Your task to perform on an android device: Go to settings Image 0: 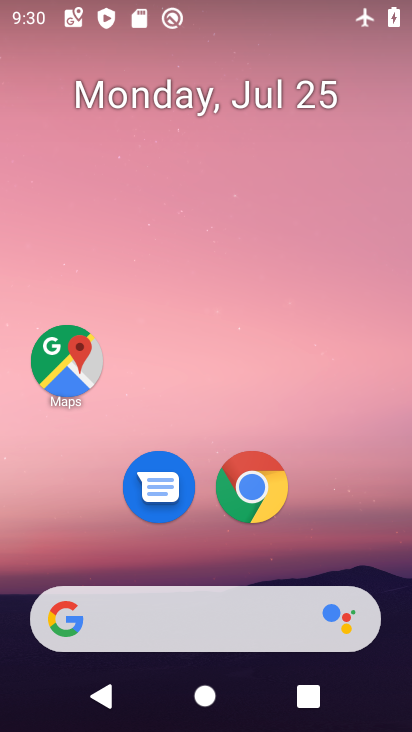
Step 0: drag from (182, 554) to (261, 18)
Your task to perform on an android device: Go to settings Image 1: 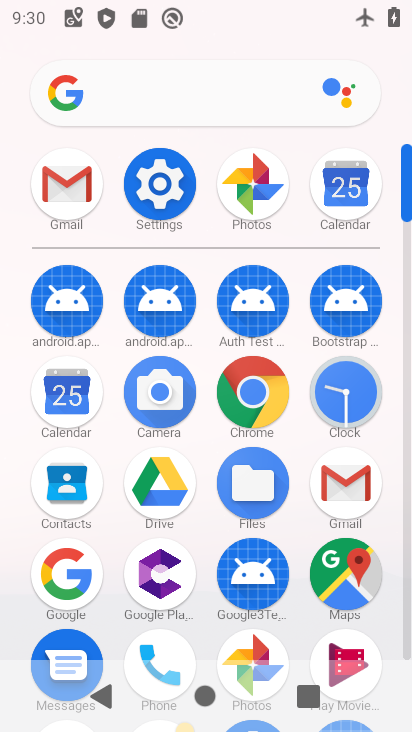
Step 1: click (169, 182)
Your task to perform on an android device: Go to settings Image 2: 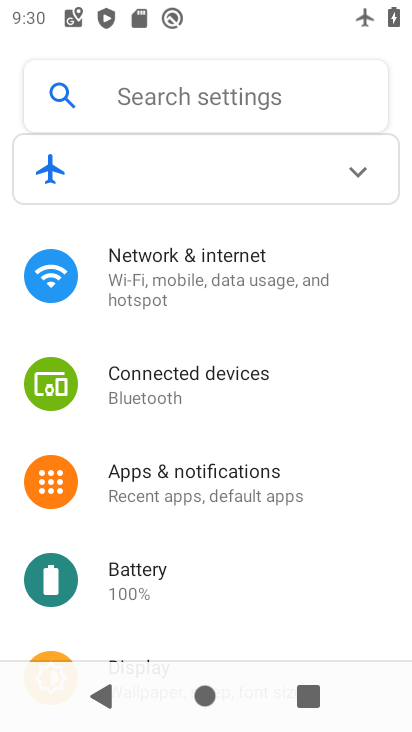
Step 2: task complete